Your task to perform on an android device: Open display settings Image 0: 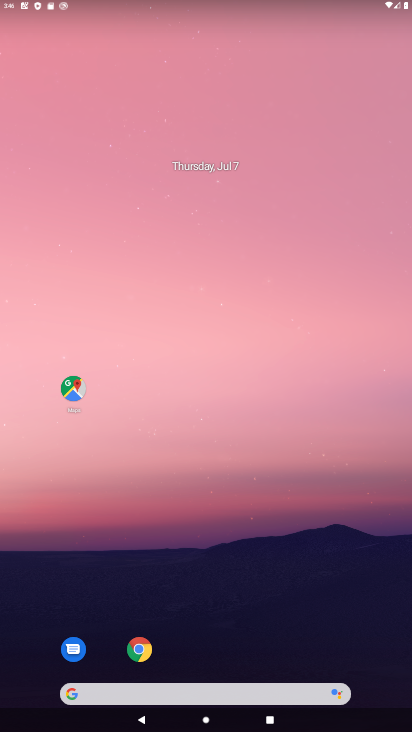
Step 0: drag from (385, 649) to (303, 13)
Your task to perform on an android device: Open display settings Image 1: 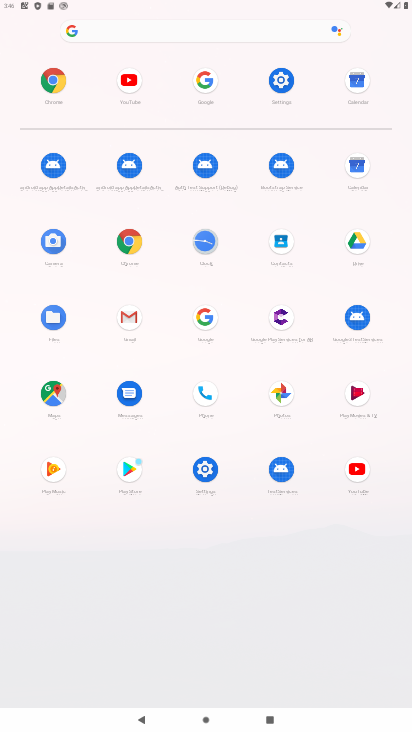
Step 1: click (280, 89)
Your task to perform on an android device: Open display settings Image 2: 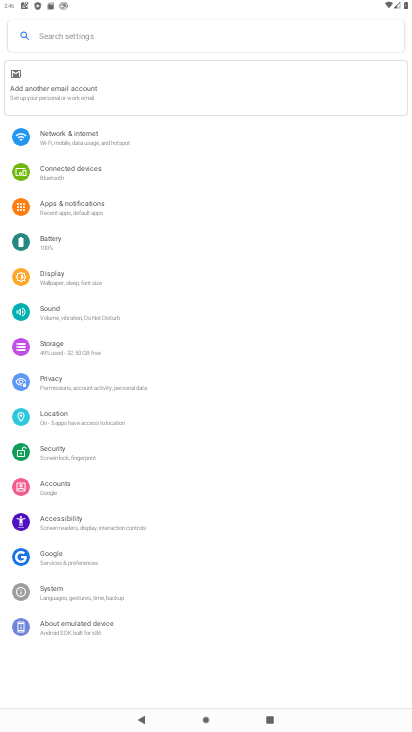
Step 2: click (44, 270)
Your task to perform on an android device: Open display settings Image 3: 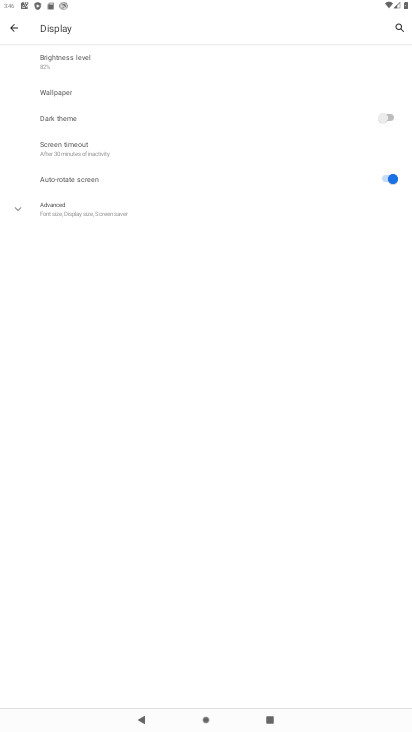
Step 3: task complete